Your task to perform on an android device: all mails in gmail Image 0: 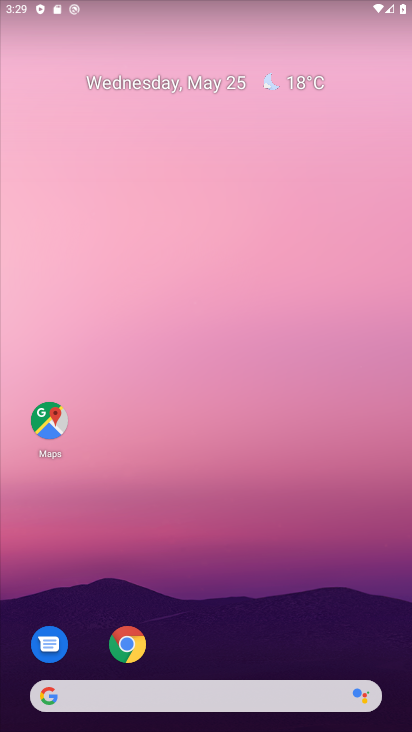
Step 0: drag from (227, 603) to (214, 56)
Your task to perform on an android device: all mails in gmail Image 1: 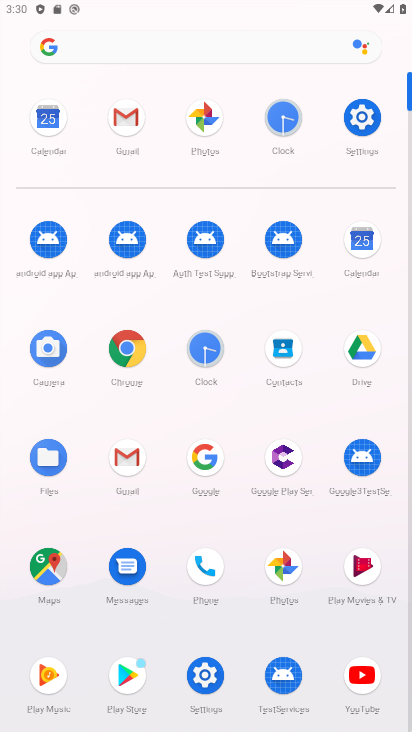
Step 1: click (125, 118)
Your task to perform on an android device: all mails in gmail Image 2: 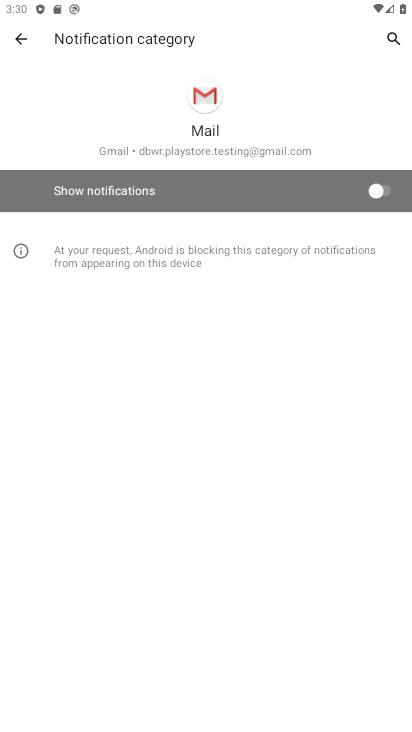
Step 2: press back button
Your task to perform on an android device: all mails in gmail Image 3: 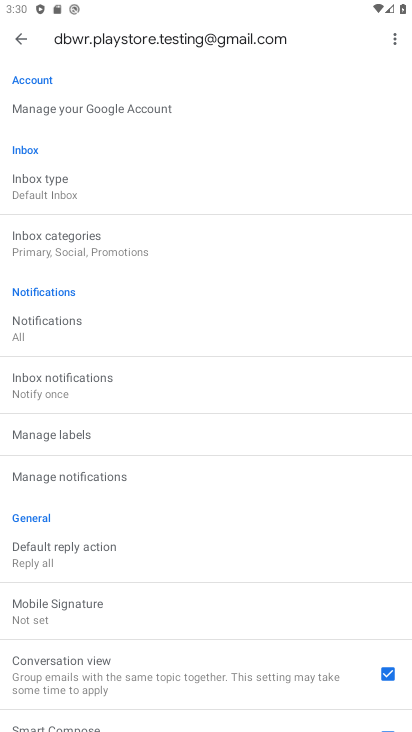
Step 3: press back button
Your task to perform on an android device: all mails in gmail Image 4: 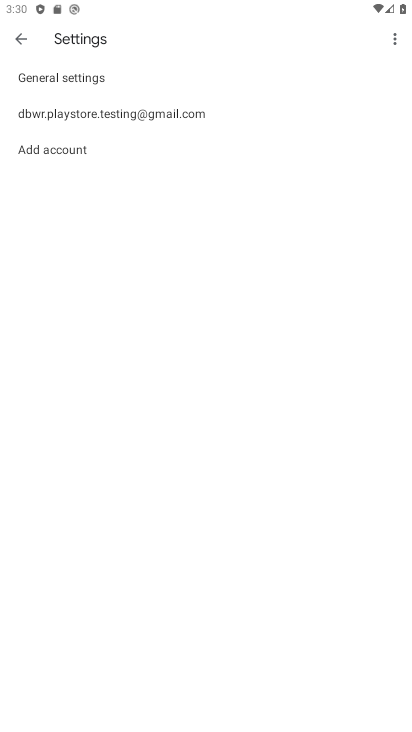
Step 4: press back button
Your task to perform on an android device: all mails in gmail Image 5: 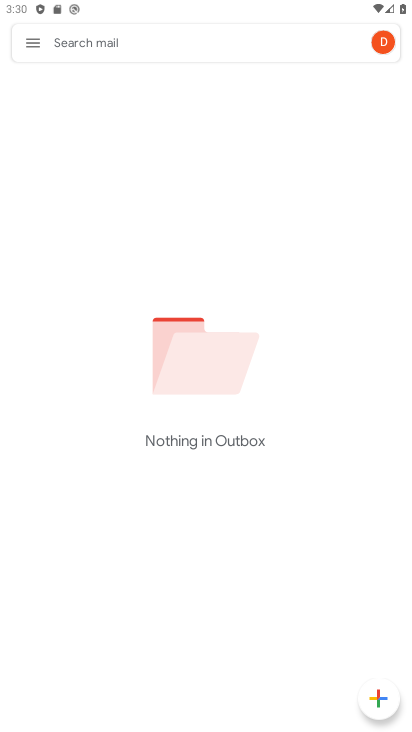
Step 5: click (31, 45)
Your task to perform on an android device: all mails in gmail Image 6: 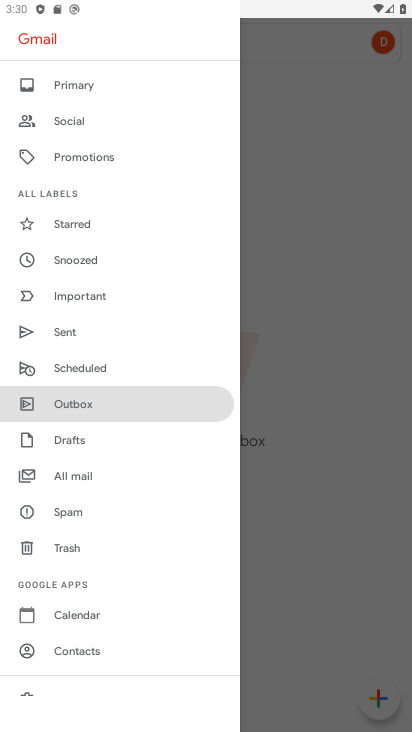
Step 6: click (63, 476)
Your task to perform on an android device: all mails in gmail Image 7: 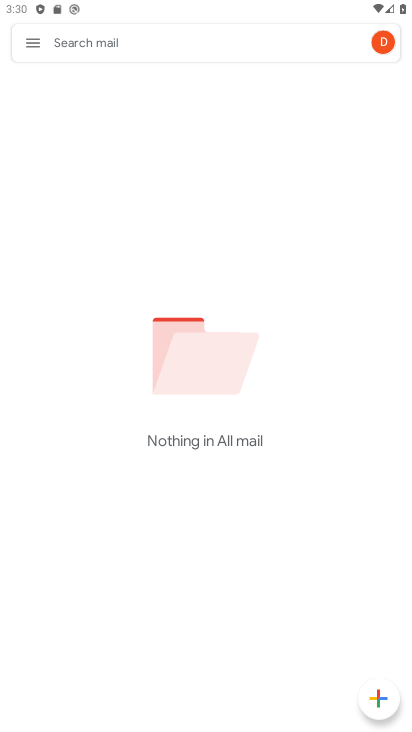
Step 7: task complete